Your task to perform on an android device: Open Yahoo.com Image 0: 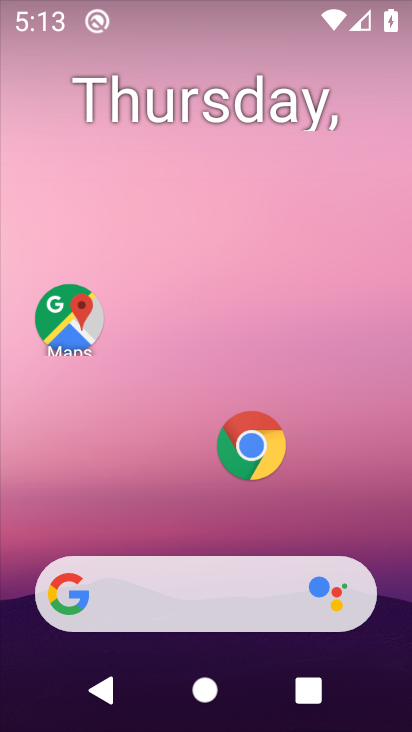
Step 0: drag from (395, 643) to (236, 140)
Your task to perform on an android device: Open Yahoo.com Image 1: 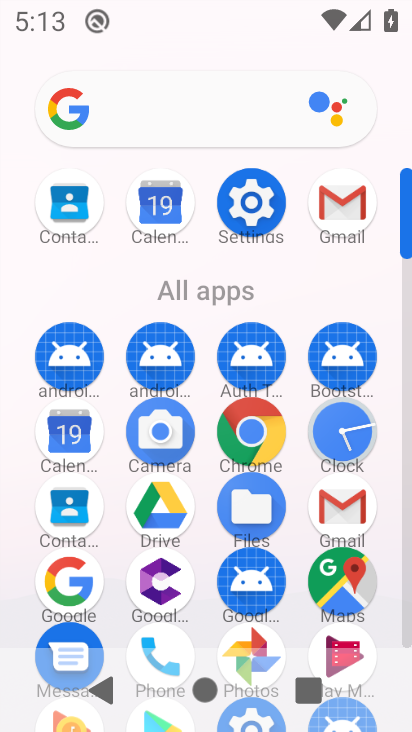
Step 1: click (257, 434)
Your task to perform on an android device: Open Yahoo.com Image 2: 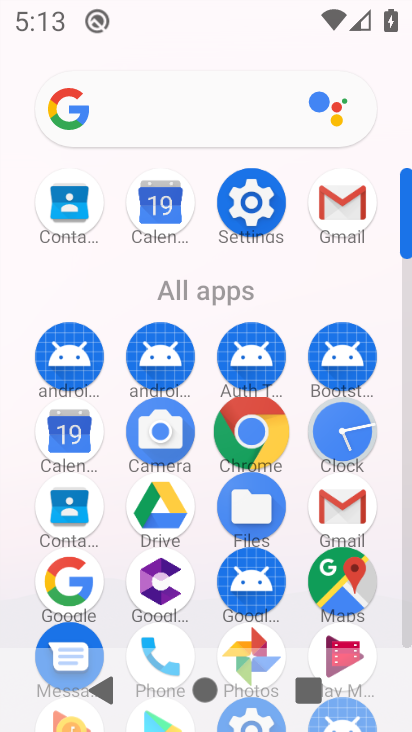
Step 2: click (256, 435)
Your task to perform on an android device: Open Yahoo.com Image 3: 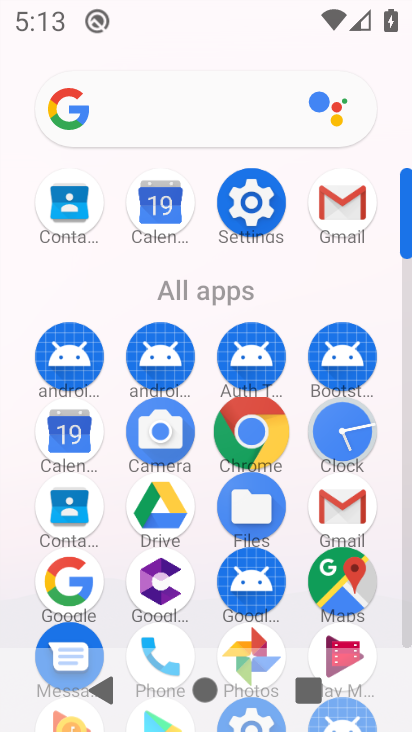
Step 3: click (256, 435)
Your task to perform on an android device: Open Yahoo.com Image 4: 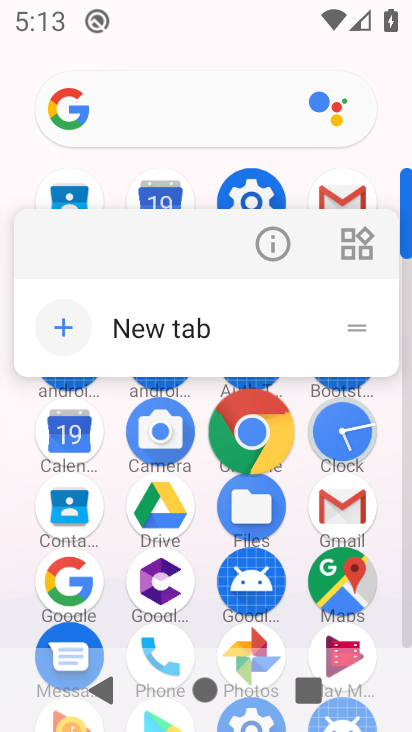
Step 4: click (256, 435)
Your task to perform on an android device: Open Yahoo.com Image 5: 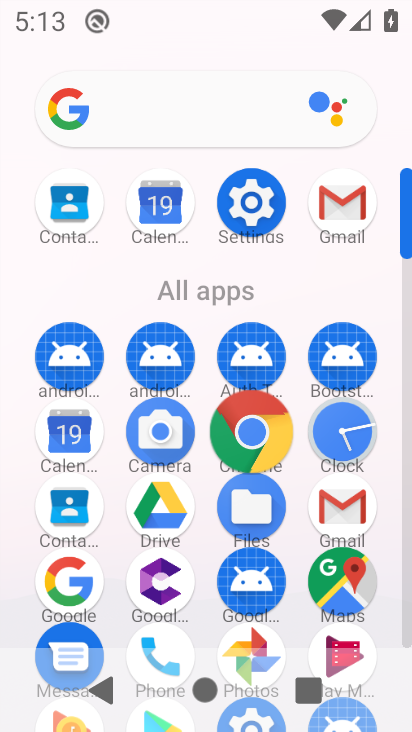
Step 5: click (251, 421)
Your task to perform on an android device: Open Yahoo.com Image 6: 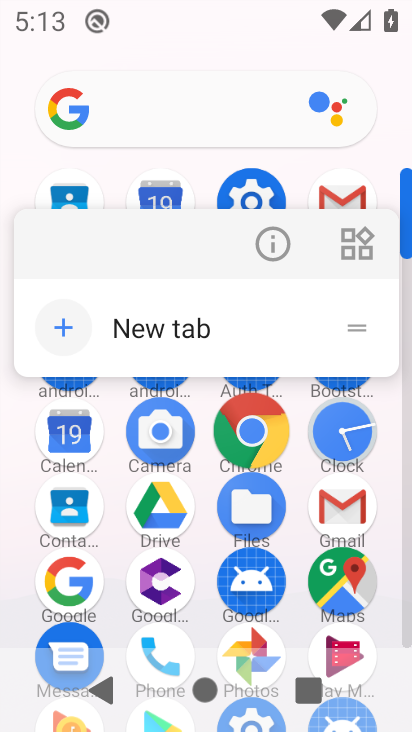
Step 6: click (253, 426)
Your task to perform on an android device: Open Yahoo.com Image 7: 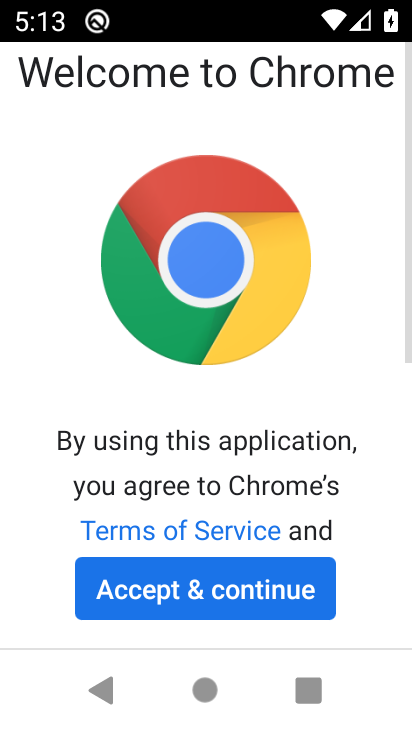
Step 7: click (190, 578)
Your task to perform on an android device: Open Yahoo.com Image 8: 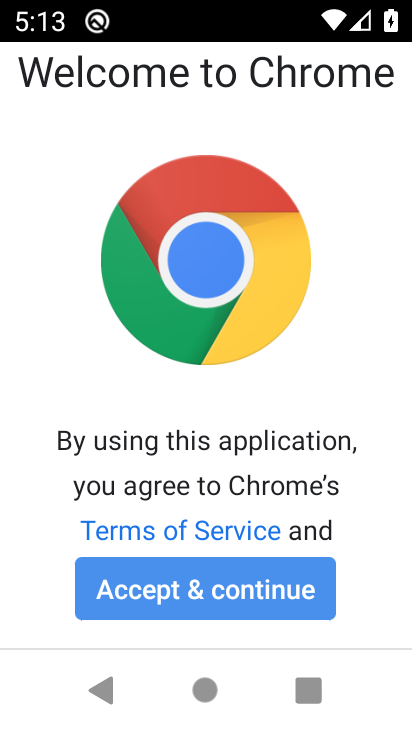
Step 8: click (194, 584)
Your task to perform on an android device: Open Yahoo.com Image 9: 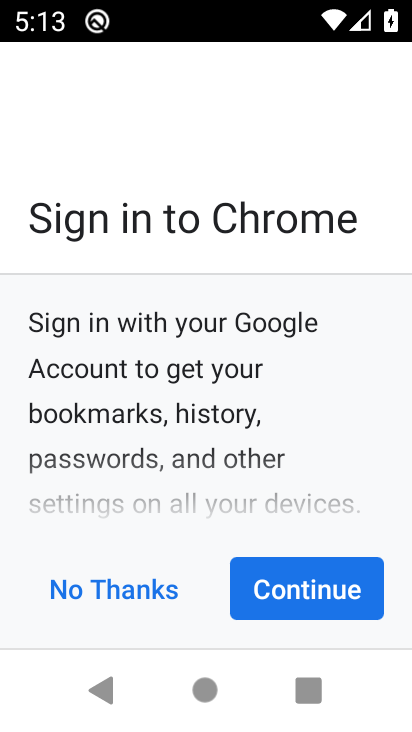
Step 9: click (235, 600)
Your task to perform on an android device: Open Yahoo.com Image 10: 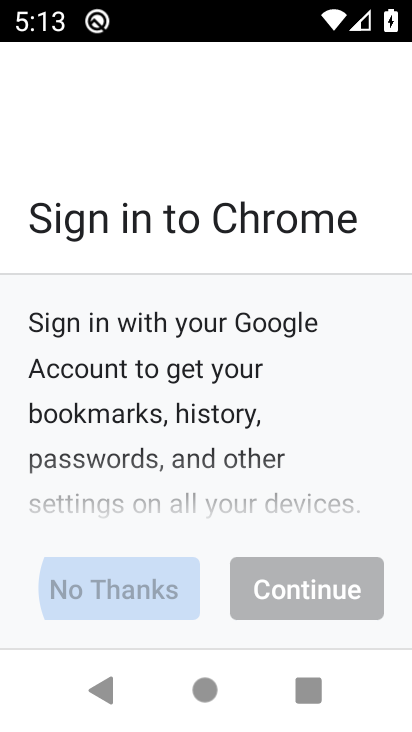
Step 10: click (249, 589)
Your task to perform on an android device: Open Yahoo.com Image 11: 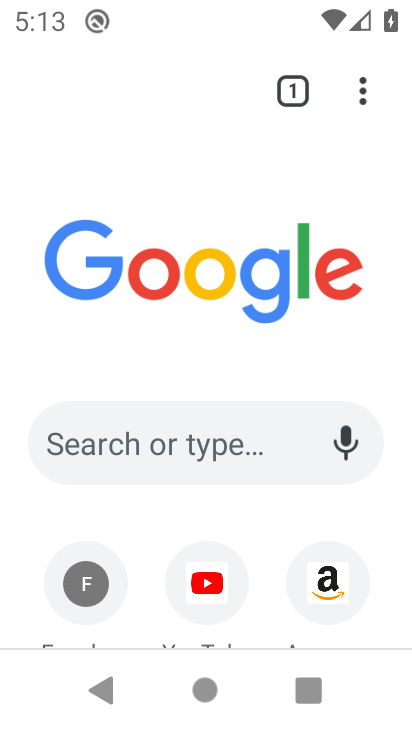
Step 11: drag from (238, 499) to (159, 67)
Your task to perform on an android device: Open Yahoo.com Image 12: 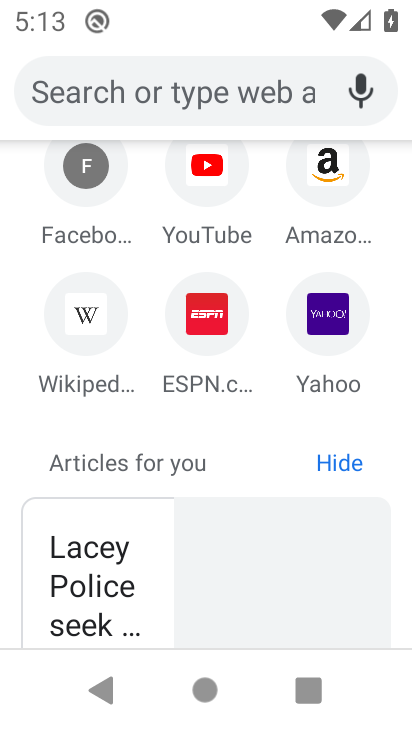
Step 12: drag from (222, 600) to (207, 128)
Your task to perform on an android device: Open Yahoo.com Image 13: 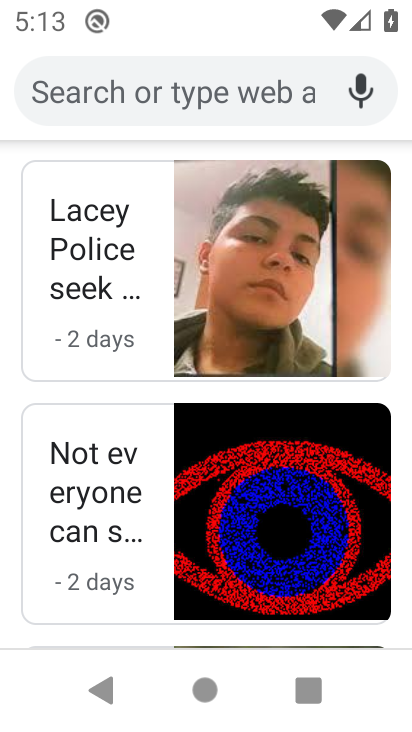
Step 13: drag from (261, 307) to (297, 552)
Your task to perform on an android device: Open Yahoo.com Image 14: 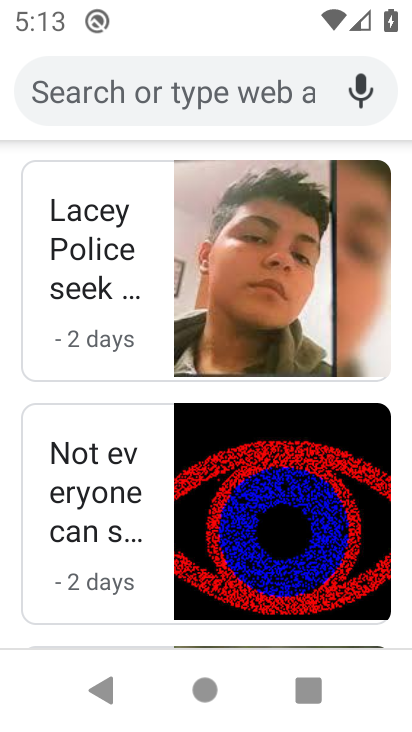
Step 14: drag from (225, 242) to (286, 587)
Your task to perform on an android device: Open Yahoo.com Image 15: 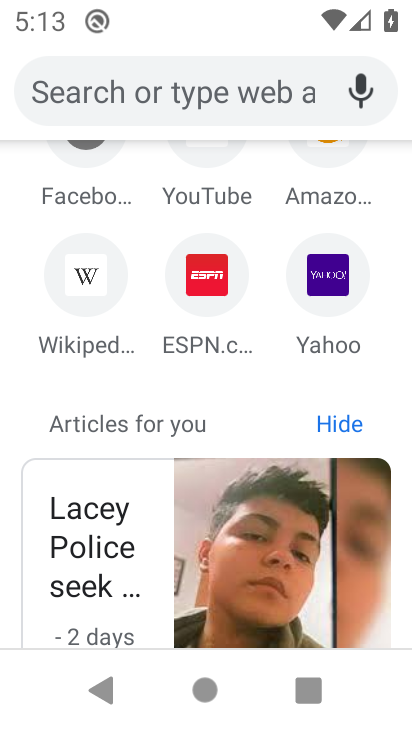
Step 15: drag from (245, 254) to (345, 595)
Your task to perform on an android device: Open Yahoo.com Image 16: 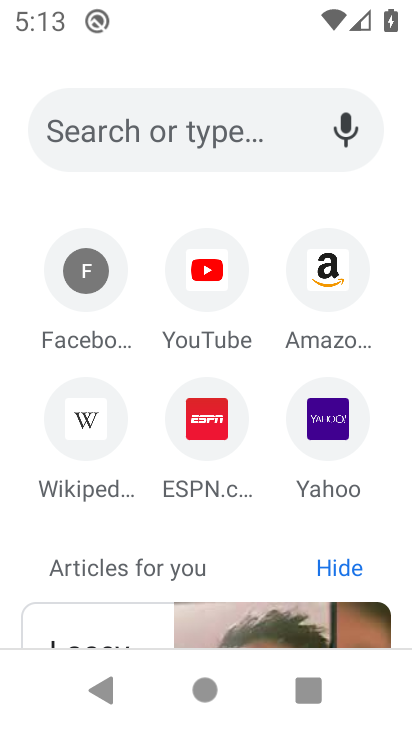
Step 16: click (335, 302)
Your task to perform on an android device: Open Yahoo.com Image 17: 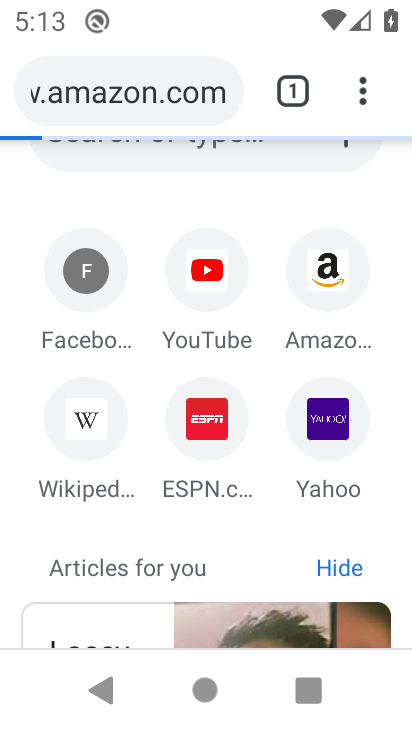
Step 17: click (324, 410)
Your task to perform on an android device: Open Yahoo.com Image 18: 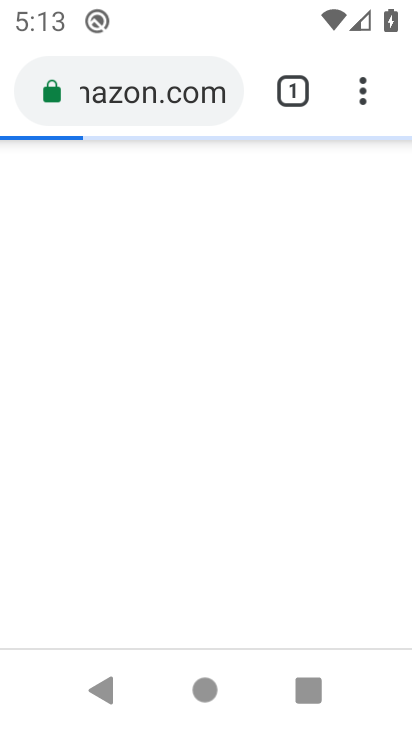
Step 18: click (327, 411)
Your task to perform on an android device: Open Yahoo.com Image 19: 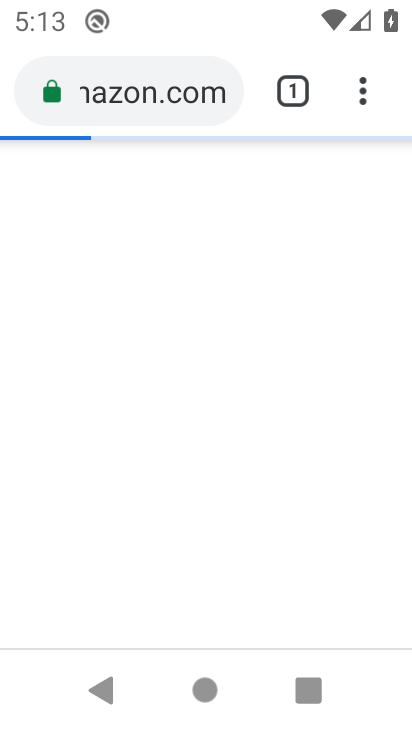
Step 19: click (331, 420)
Your task to perform on an android device: Open Yahoo.com Image 20: 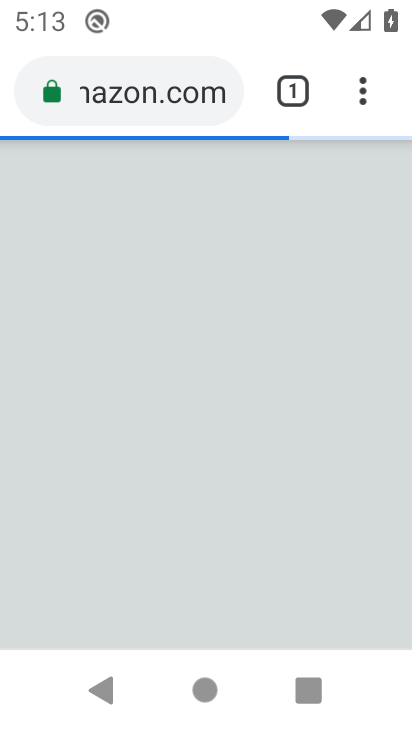
Step 20: click (332, 424)
Your task to perform on an android device: Open Yahoo.com Image 21: 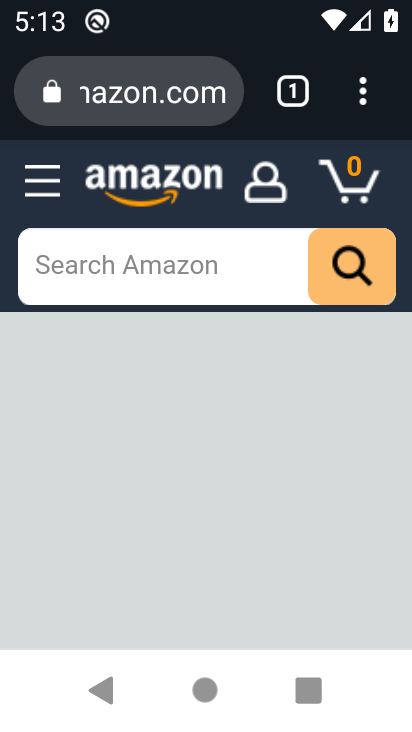
Step 21: task complete